Your task to perform on an android device: set default search engine in the chrome app Image 0: 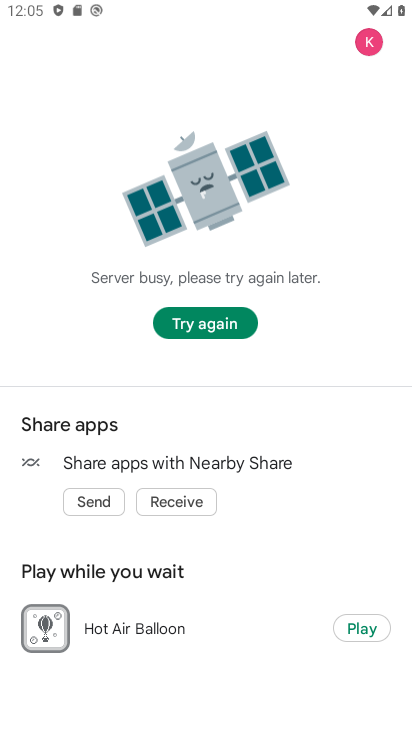
Step 0: press home button
Your task to perform on an android device: set default search engine in the chrome app Image 1: 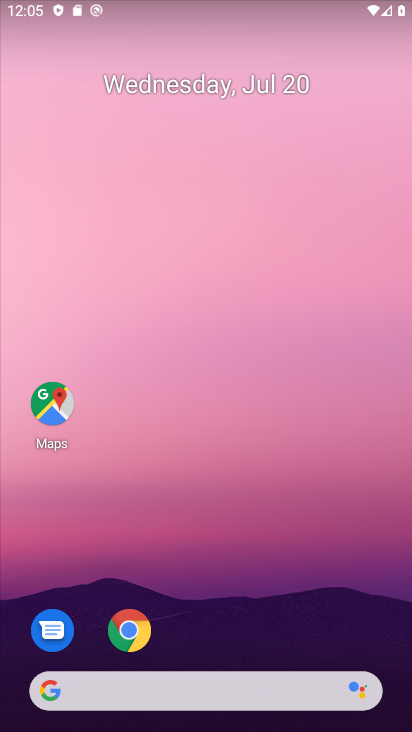
Step 1: click (129, 630)
Your task to perform on an android device: set default search engine in the chrome app Image 2: 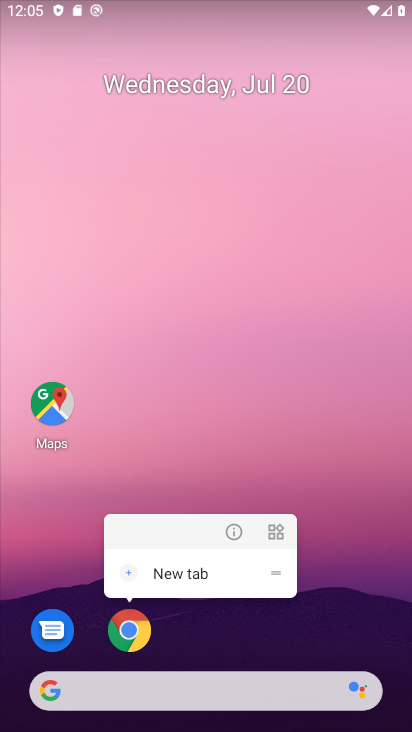
Step 2: click (135, 628)
Your task to perform on an android device: set default search engine in the chrome app Image 3: 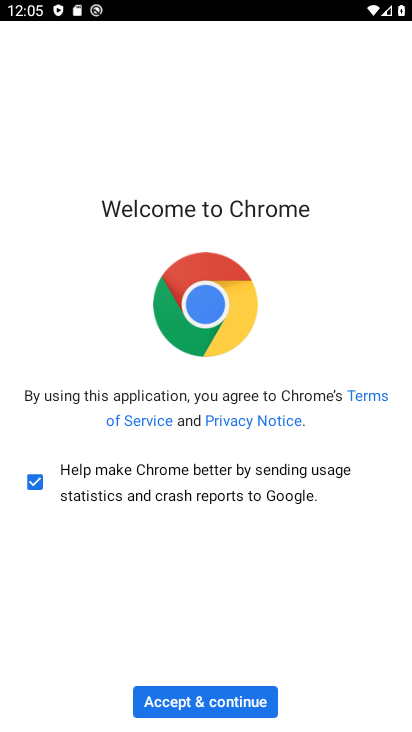
Step 3: click (177, 694)
Your task to perform on an android device: set default search engine in the chrome app Image 4: 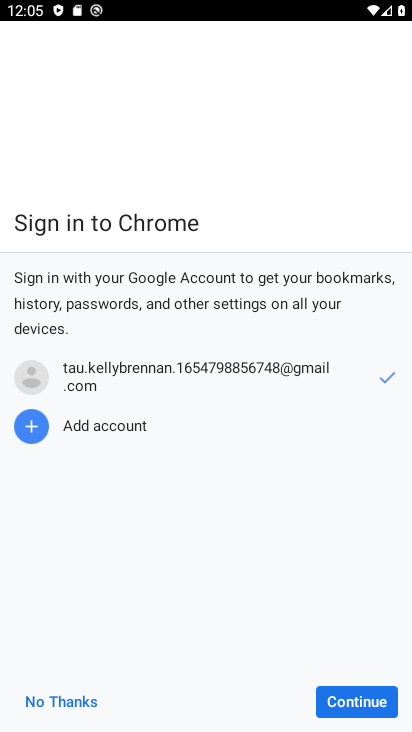
Step 4: click (362, 697)
Your task to perform on an android device: set default search engine in the chrome app Image 5: 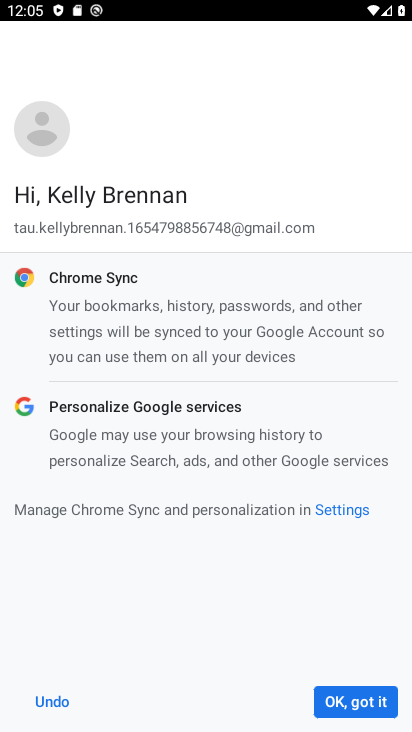
Step 5: click (362, 697)
Your task to perform on an android device: set default search engine in the chrome app Image 6: 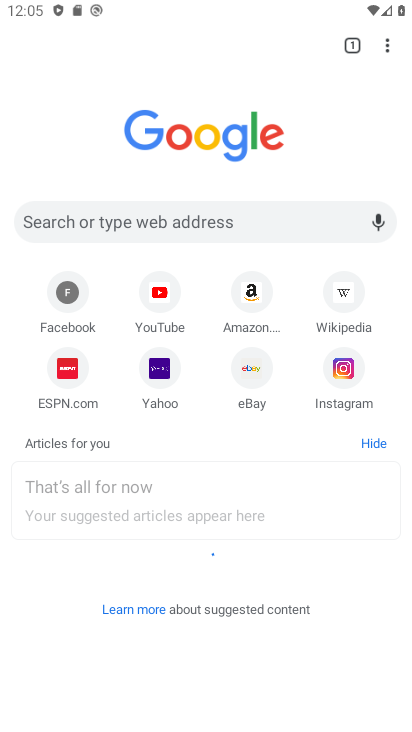
Step 6: click (393, 63)
Your task to perform on an android device: set default search engine in the chrome app Image 7: 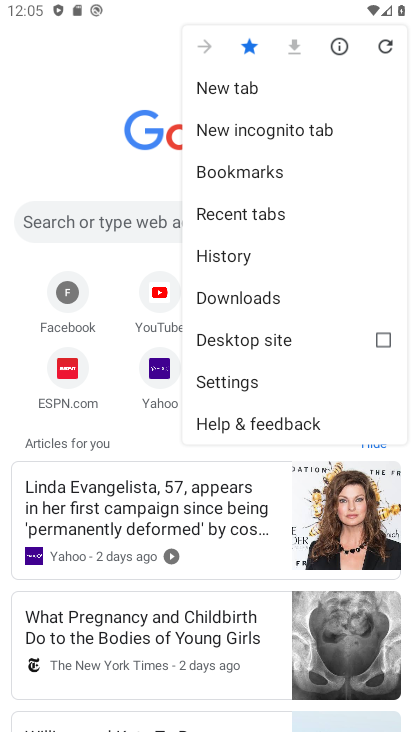
Step 7: click (241, 378)
Your task to perform on an android device: set default search engine in the chrome app Image 8: 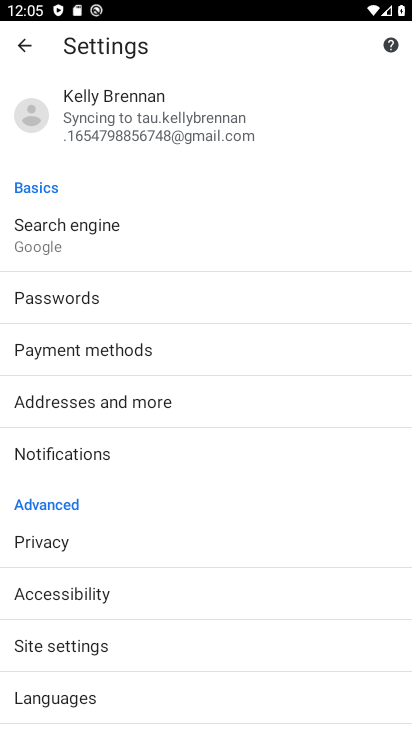
Step 8: click (83, 236)
Your task to perform on an android device: set default search engine in the chrome app Image 9: 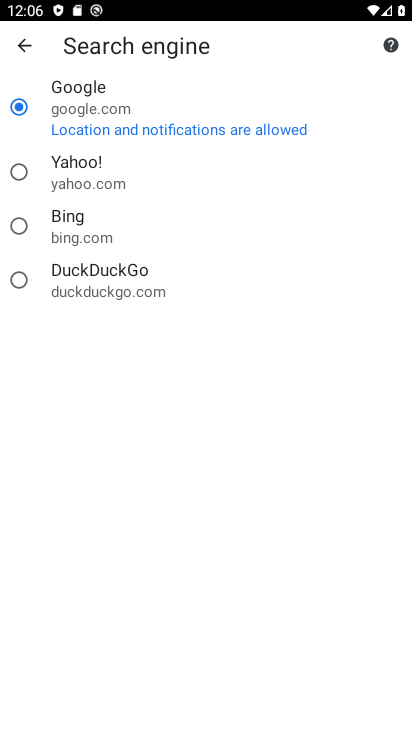
Step 9: click (19, 170)
Your task to perform on an android device: set default search engine in the chrome app Image 10: 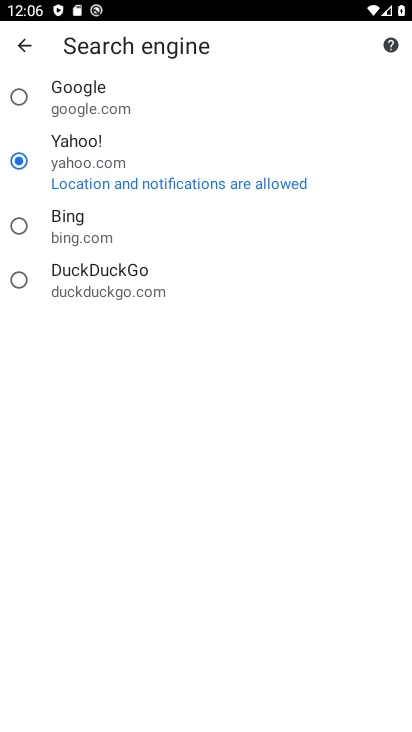
Step 10: task complete